Your task to perform on an android device: check out phone information Image 0: 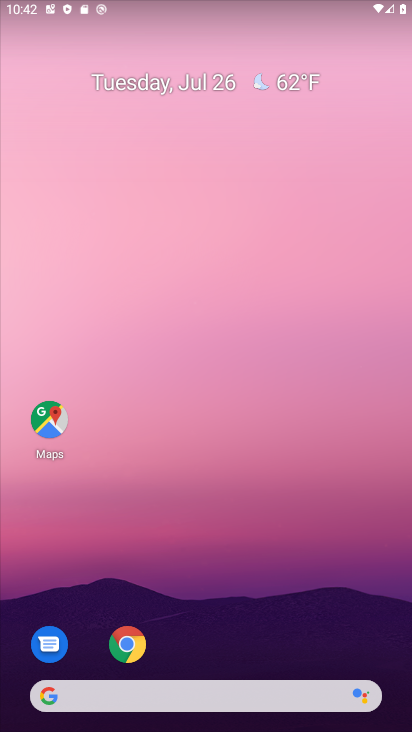
Step 0: drag from (272, 634) to (272, 199)
Your task to perform on an android device: check out phone information Image 1: 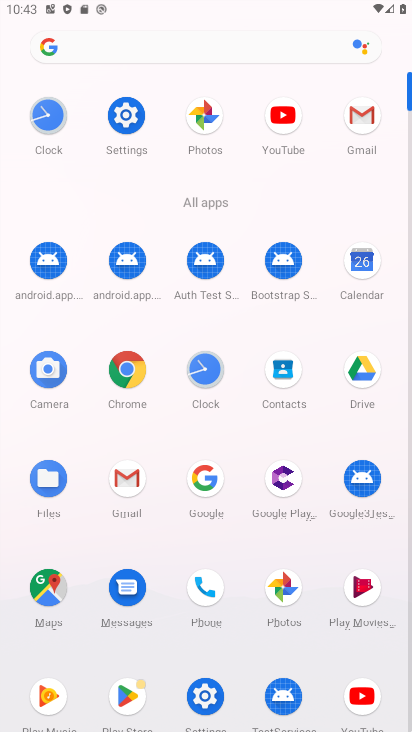
Step 1: drag from (240, 209) to (247, 30)
Your task to perform on an android device: check out phone information Image 2: 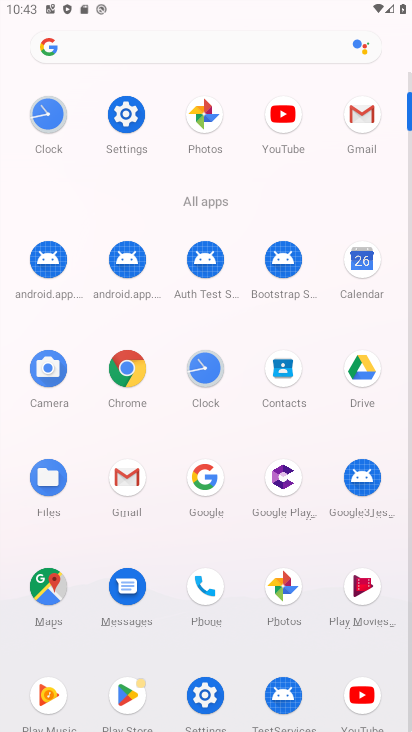
Step 2: click (206, 691)
Your task to perform on an android device: check out phone information Image 3: 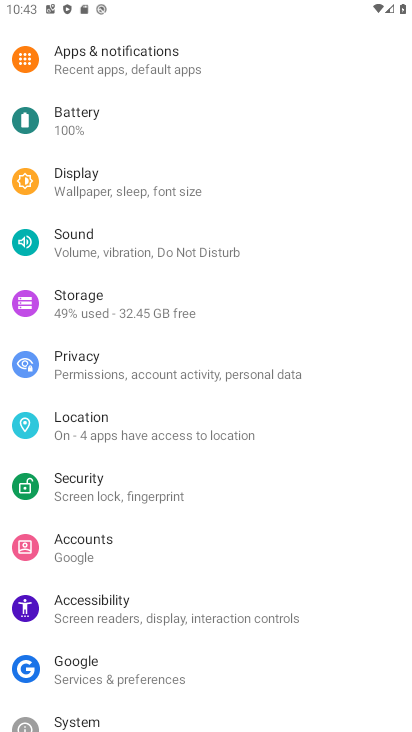
Step 3: drag from (385, 652) to (331, 309)
Your task to perform on an android device: check out phone information Image 4: 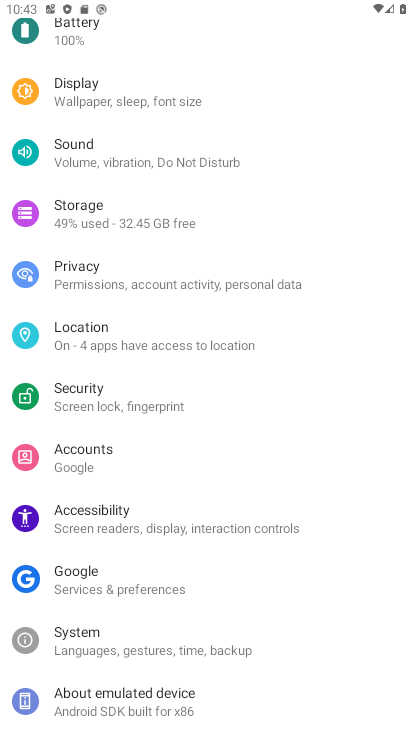
Step 4: click (199, 704)
Your task to perform on an android device: check out phone information Image 5: 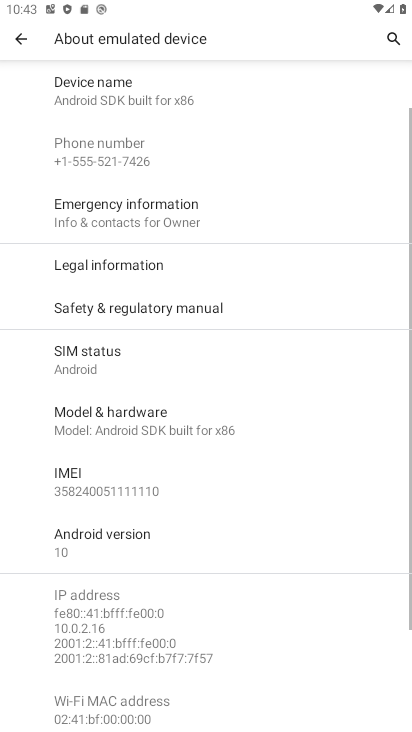
Step 5: task complete